Your task to perform on an android device: turn off improve location accuracy Image 0: 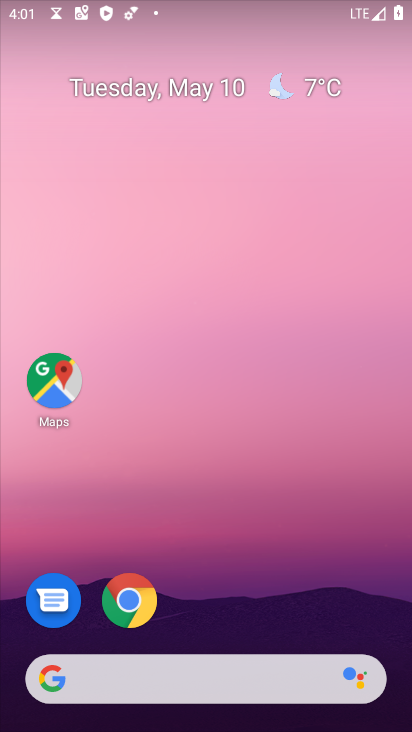
Step 0: drag from (322, 634) to (366, 386)
Your task to perform on an android device: turn off improve location accuracy Image 1: 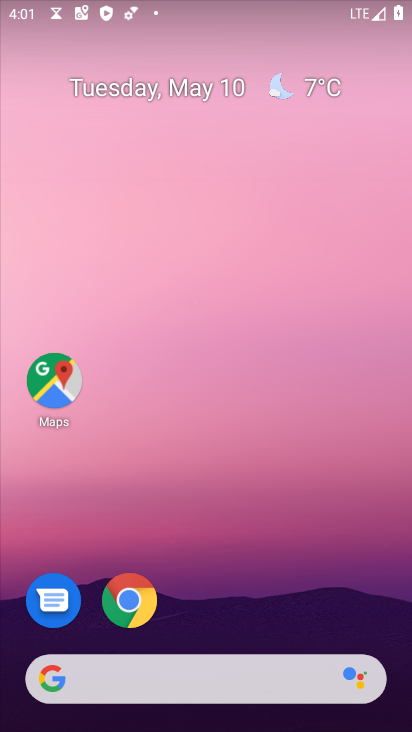
Step 1: drag from (234, 592) to (266, 178)
Your task to perform on an android device: turn off improve location accuracy Image 2: 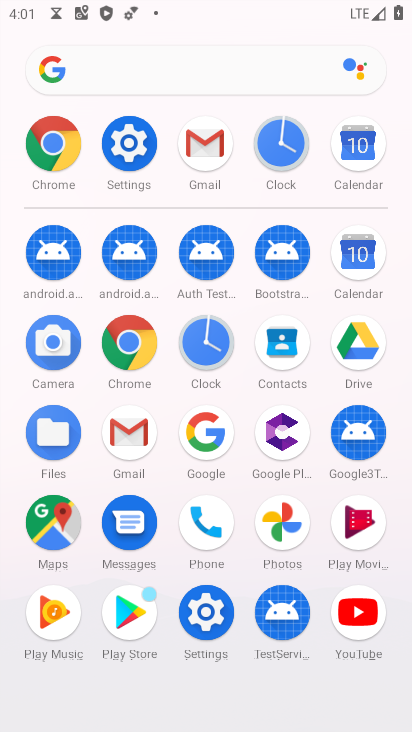
Step 2: click (145, 145)
Your task to perform on an android device: turn off improve location accuracy Image 3: 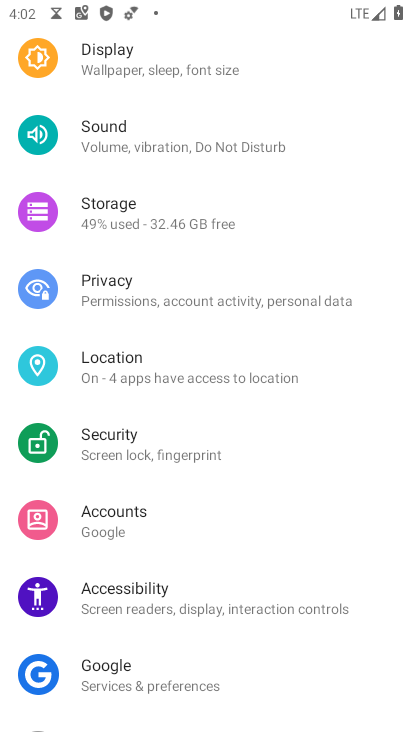
Step 3: click (183, 364)
Your task to perform on an android device: turn off improve location accuracy Image 4: 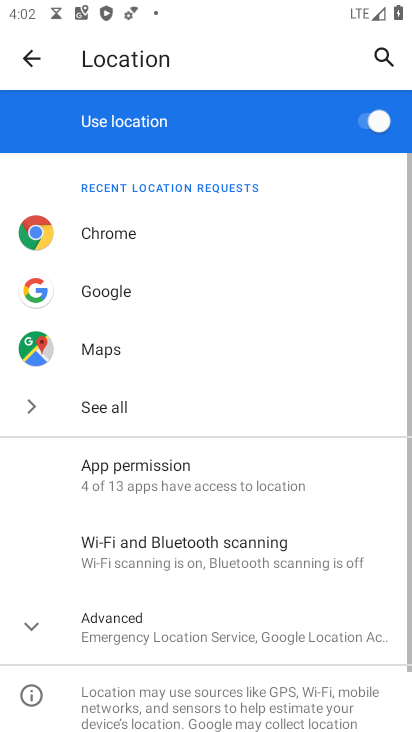
Step 4: drag from (239, 536) to (233, 200)
Your task to perform on an android device: turn off improve location accuracy Image 5: 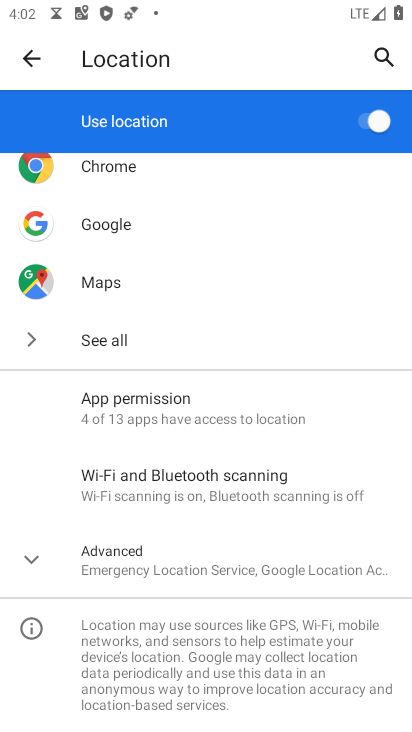
Step 5: click (44, 41)
Your task to perform on an android device: turn off improve location accuracy Image 6: 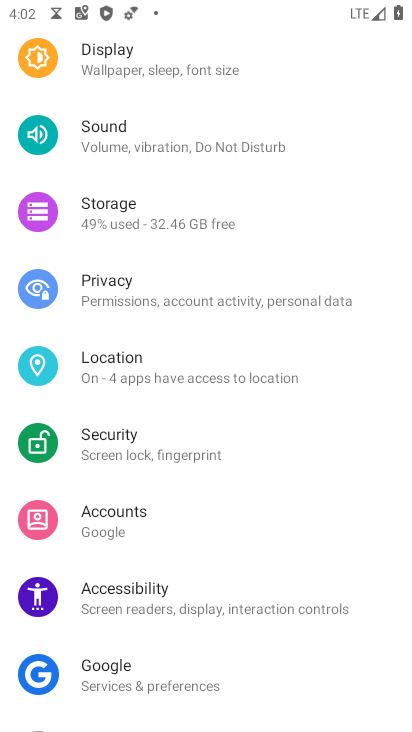
Step 6: task complete